Your task to perform on an android device: change the clock display to show seconds Image 0: 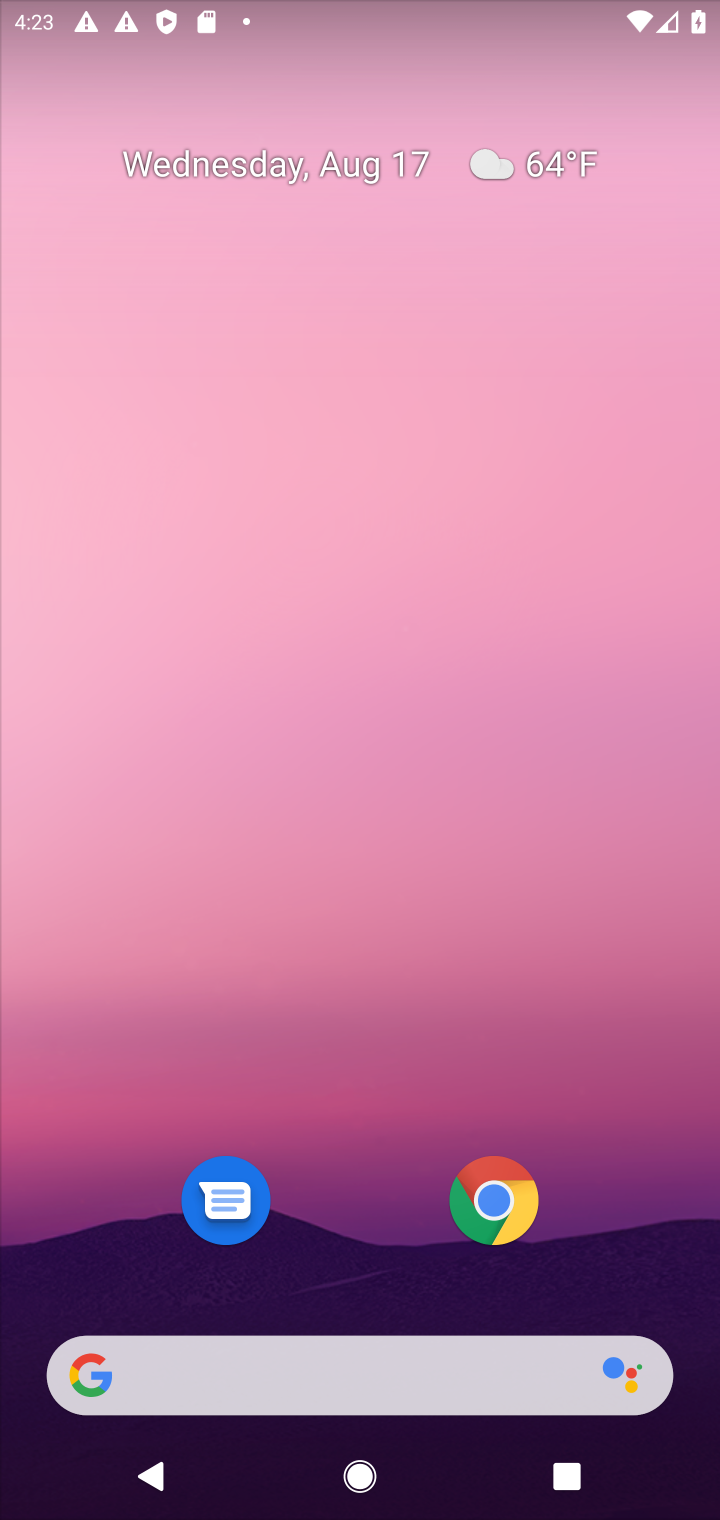
Step 0: drag from (376, 689) to (376, 242)
Your task to perform on an android device: change the clock display to show seconds Image 1: 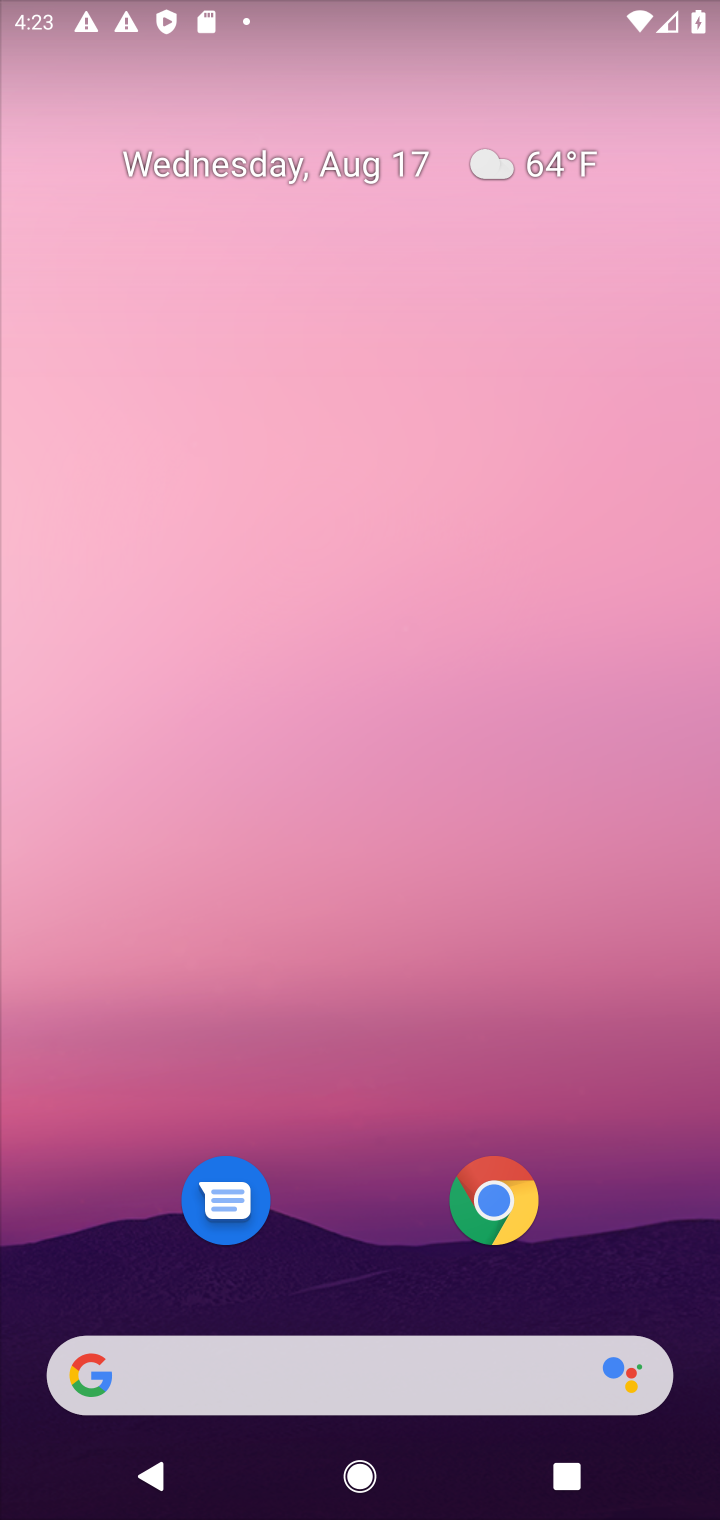
Step 1: drag from (353, 1305) to (376, 216)
Your task to perform on an android device: change the clock display to show seconds Image 2: 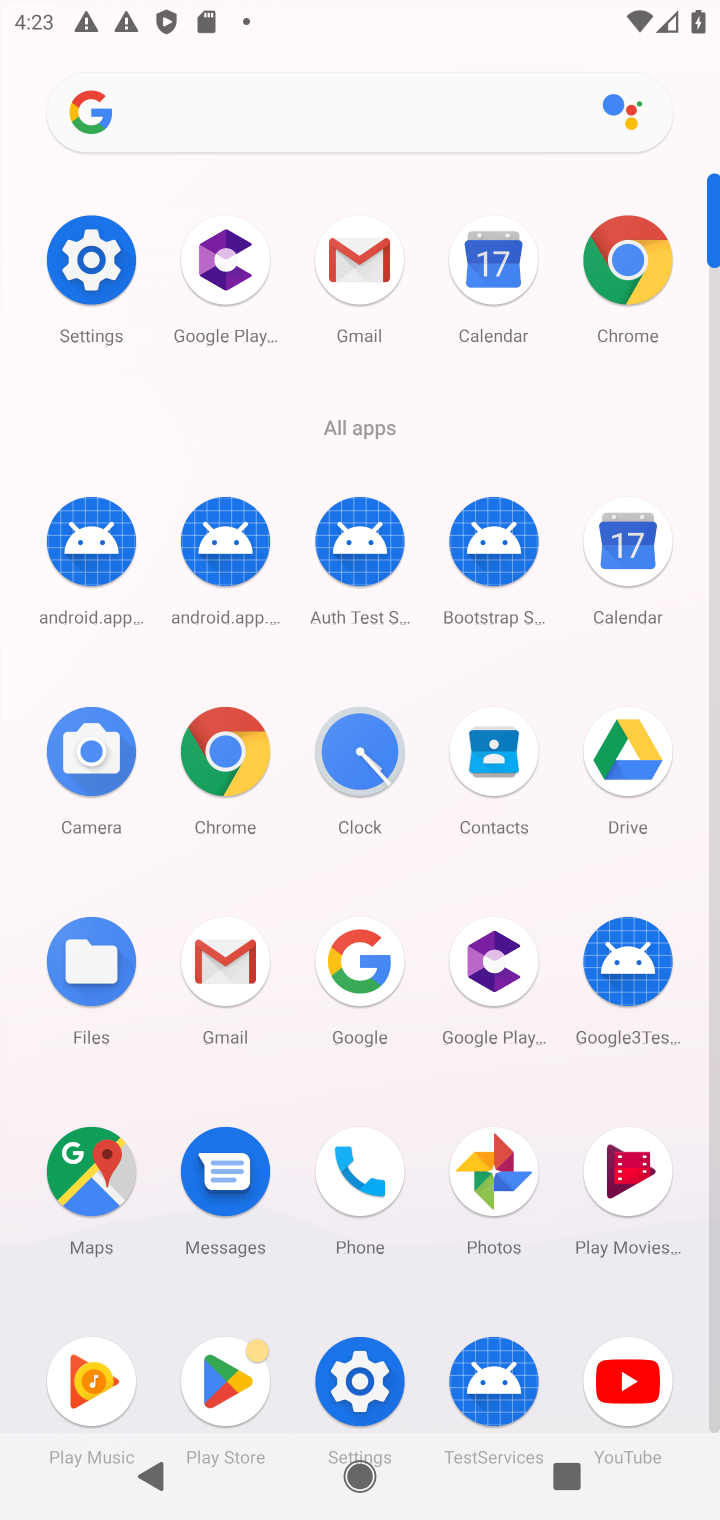
Step 2: click (365, 740)
Your task to perform on an android device: change the clock display to show seconds Image 3: 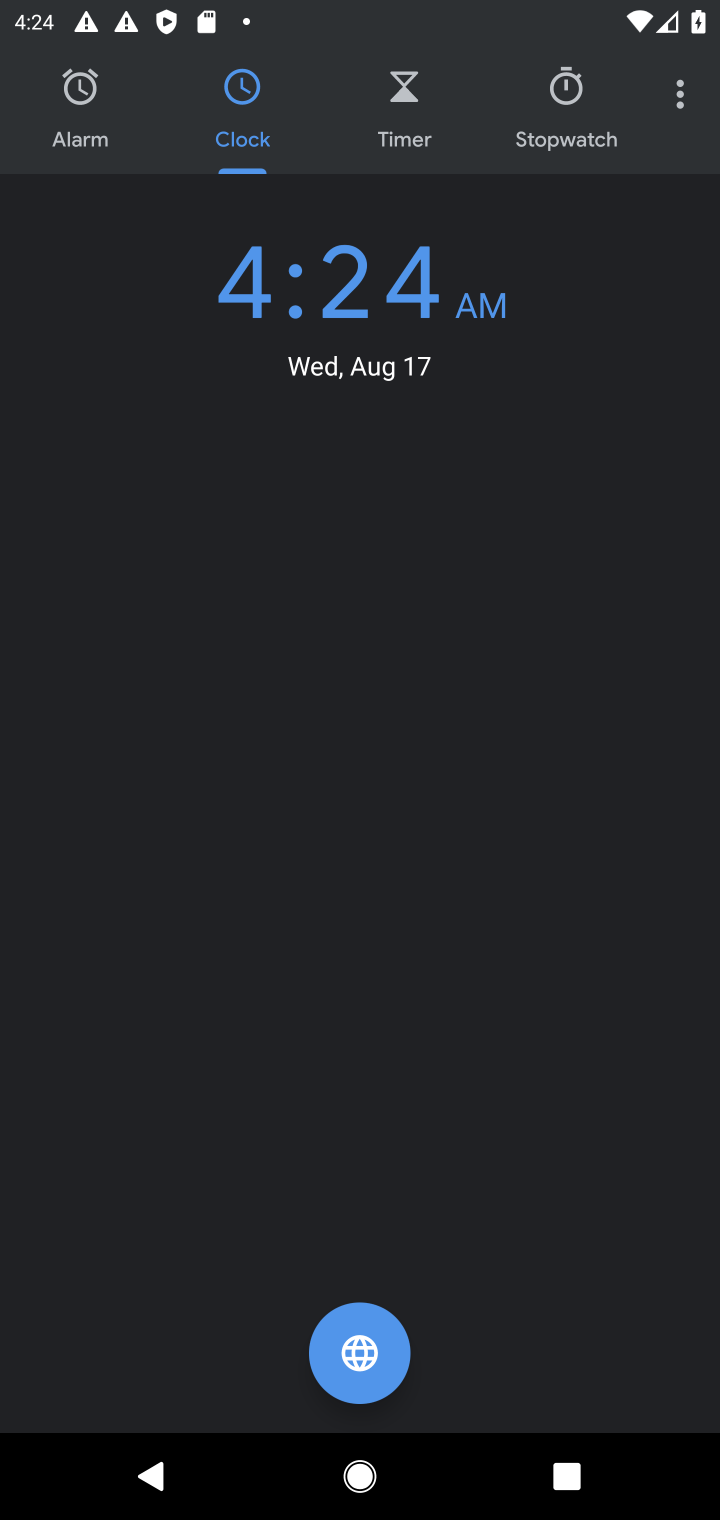
Step 3: click (679, 108)
Your task to perform on an android device: change the clock display to show seconds Image 4: 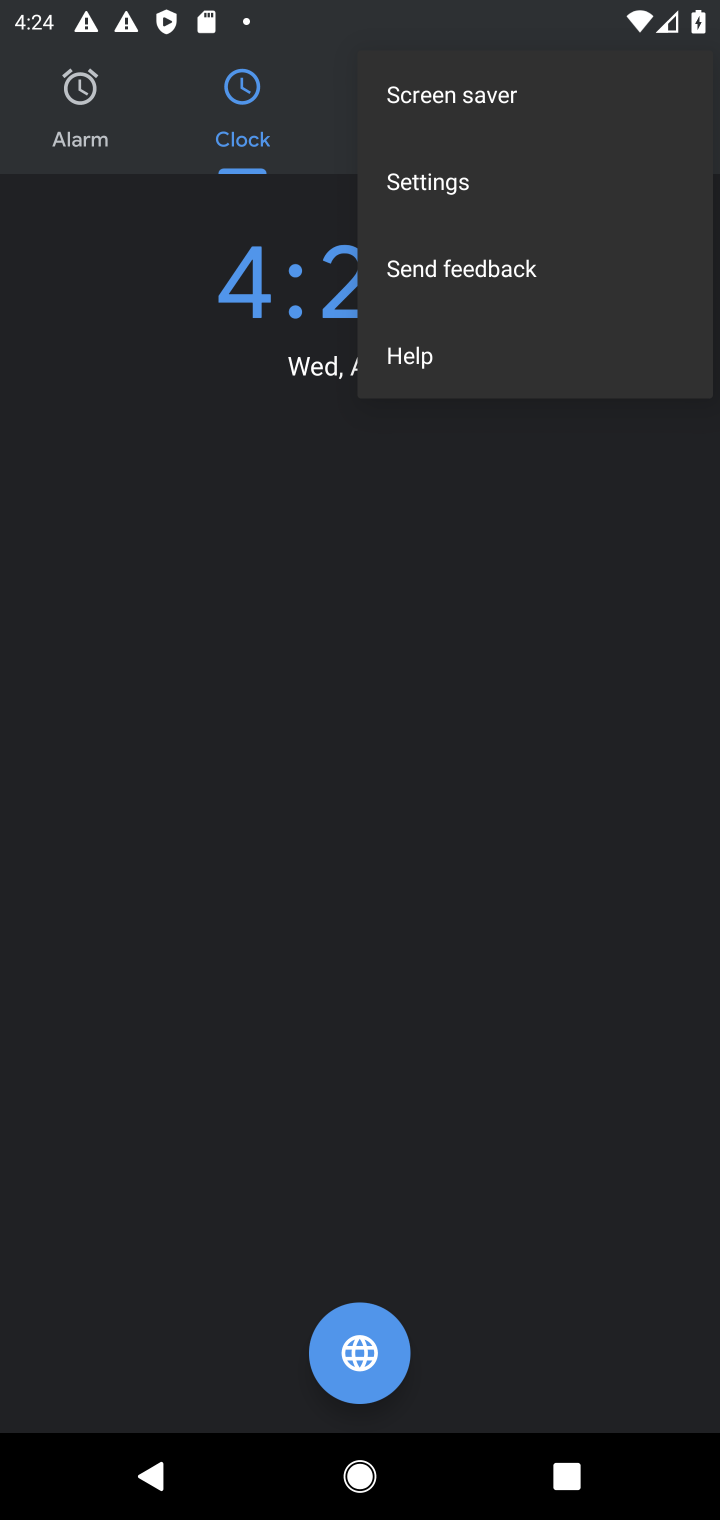
Step 4: click (433, 180)
Your task to perform on an android device: change the clock display to show seconds Image 5: 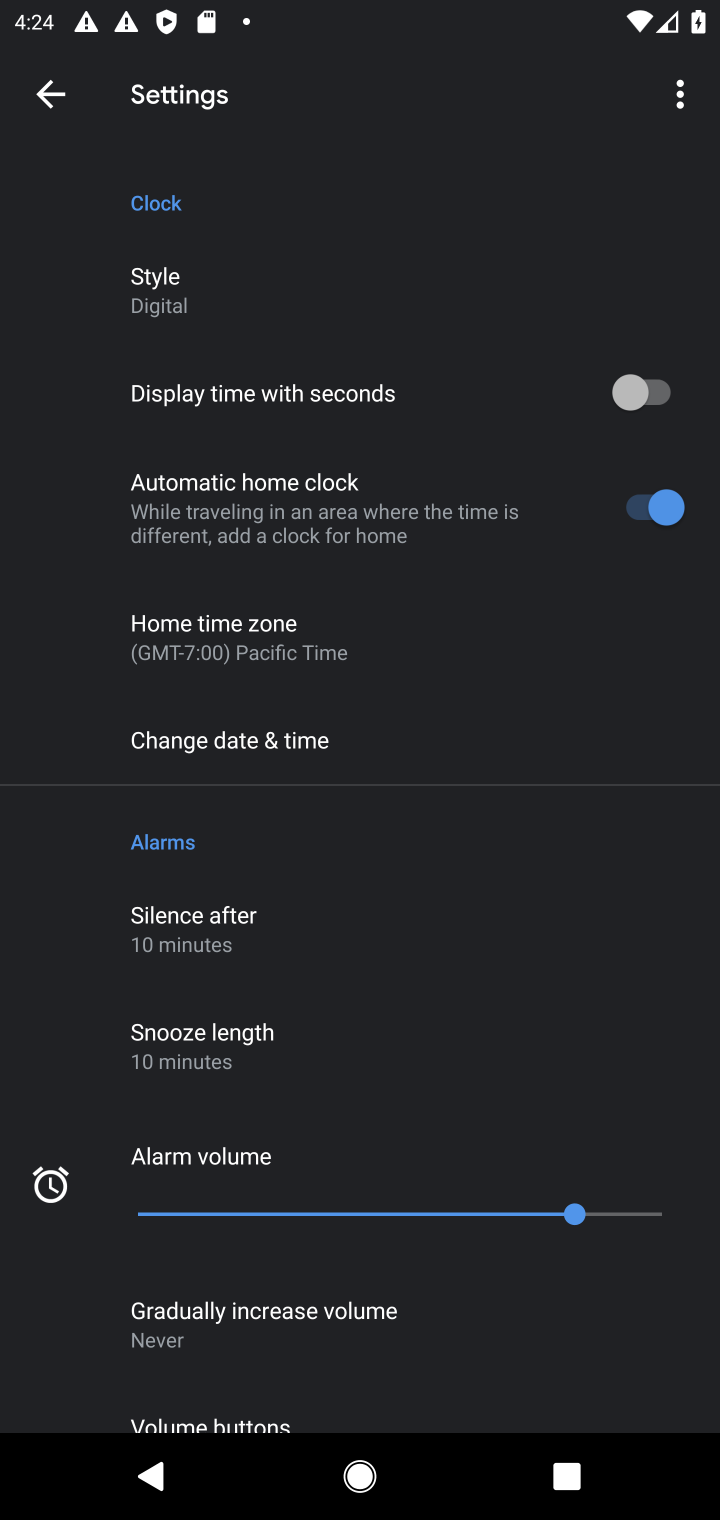
Step 5: click (642, 389)
Your task to perform on an android device: change the clock display to show seconds Image 6: 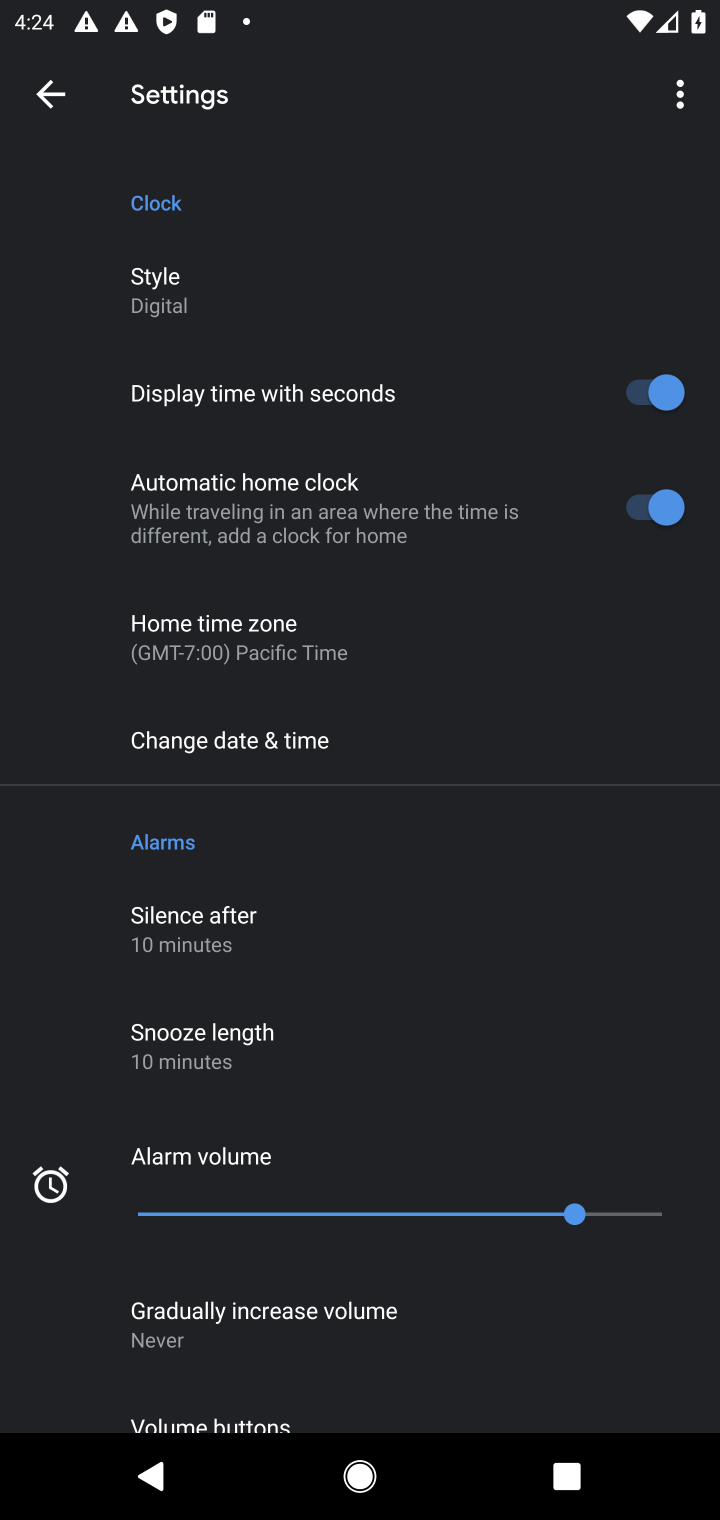
Step 6: task complete